Your task to perform on an android device: Go to notification settings Image 0: 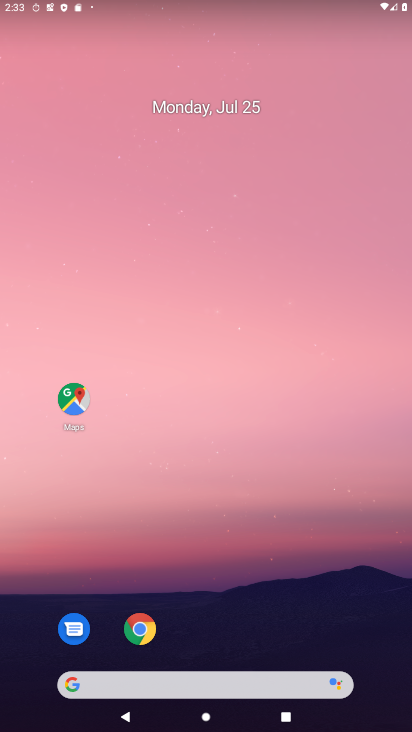
Step 0: drag from (27, 684) to (206, 49)
Your task to perform on an android device: Go to notification settings Image 1: 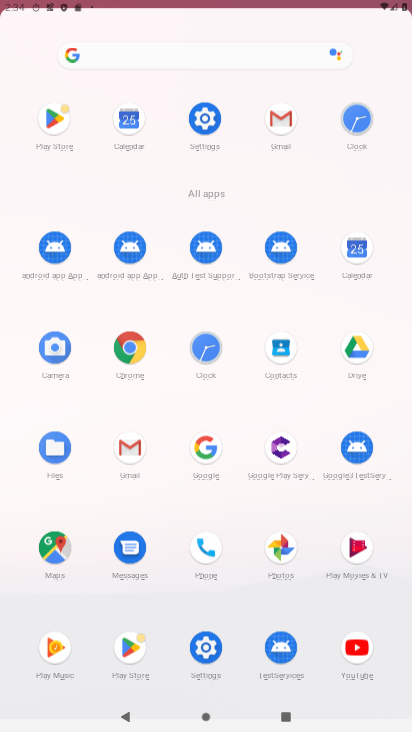
Step 1: click (212, 632)
Your task to perform on an android device: Go to notification settings Image 2: 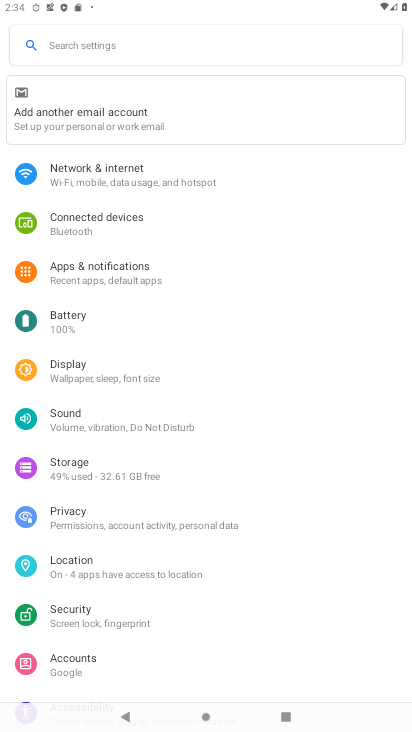
Step 2: click (119, 269)
Your task to perform on an android device: Go to notification settings Image 3: 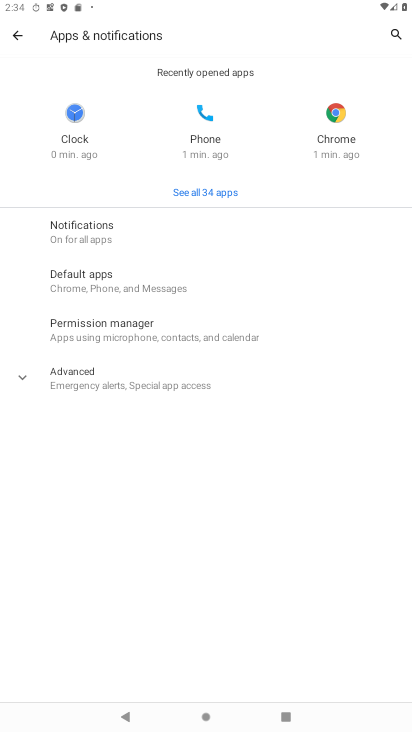
Step 3: click (96, 241)
Your task to perform on an android device: Go to notification settings Image 4: 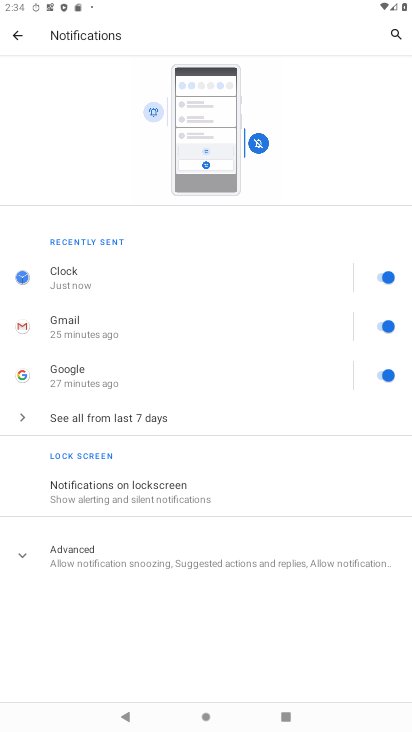
Step 4: task complete